Your task to perform on an android device: open app "Microsoft Authenticator" (install if not already installed) and enter user name: "Cornell@yahoo.com" and password: "bothersome" Image 0: 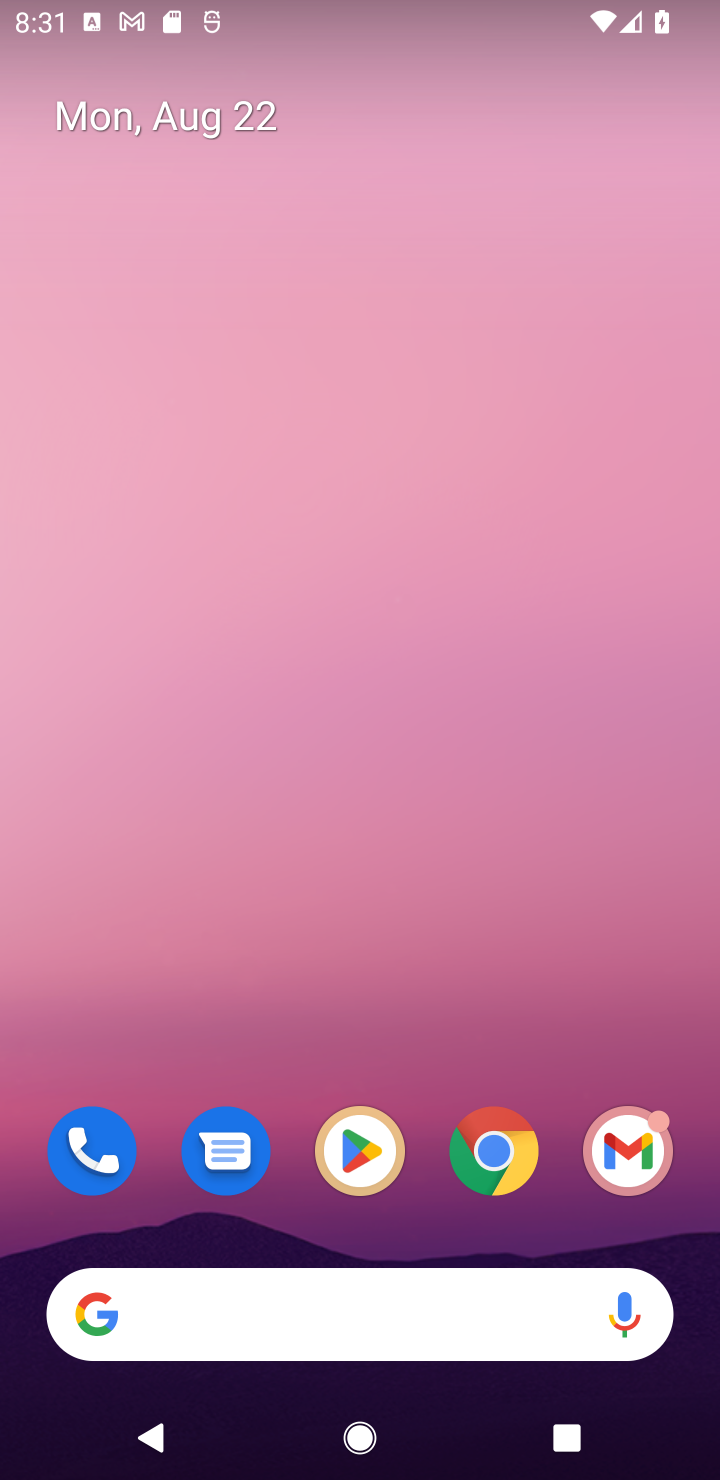
Step 0: click (358, 1162)
Your task to perform on an android device: open app "Microsoft Authenticator" (install if not already installed) and enter user name: "Cornell@yahoo.com" and password: "bothersome" Image 1: 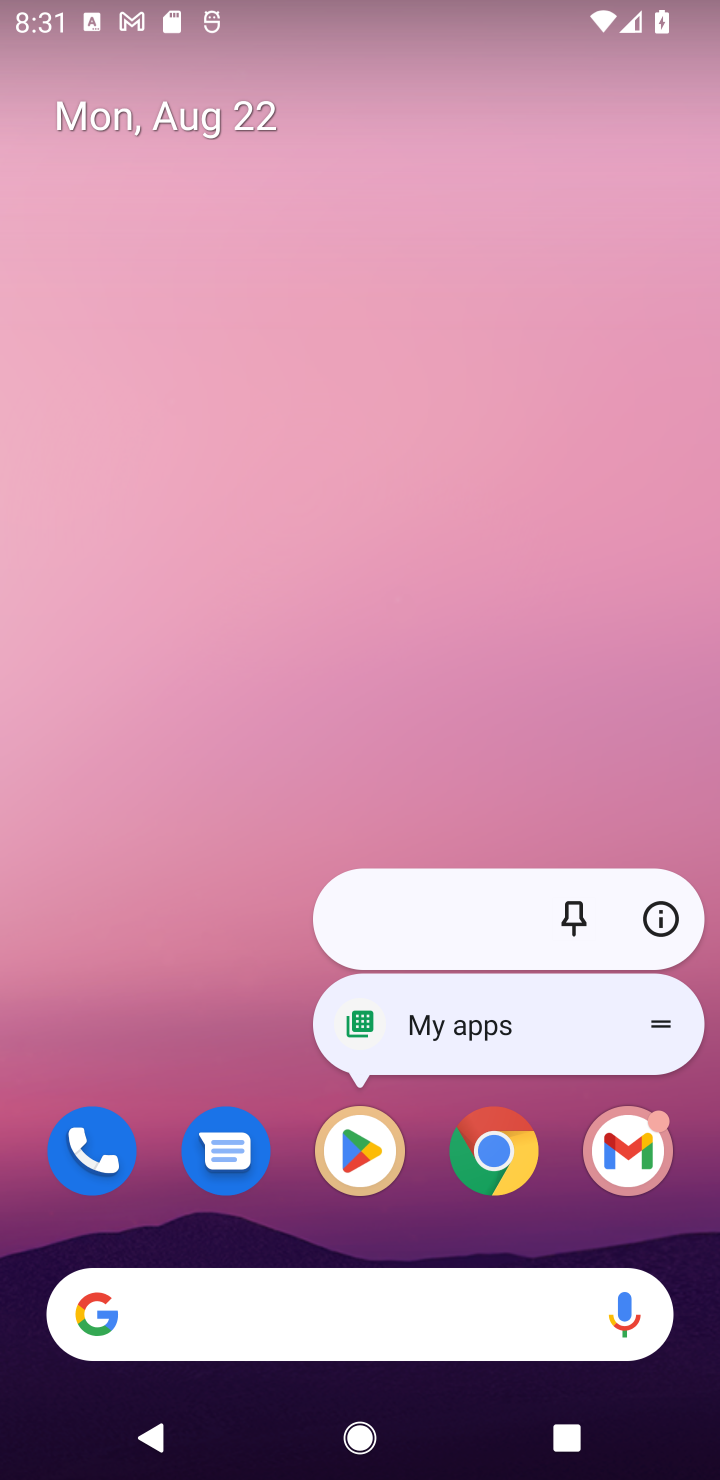
Step 1: click (358, 1171)
Your task to perform on an android device: open app "Microsoft Authenticator" (install if not already installed) and enter user name: "Cornell@yahoo.com" and password: "bothersome" Image 2: 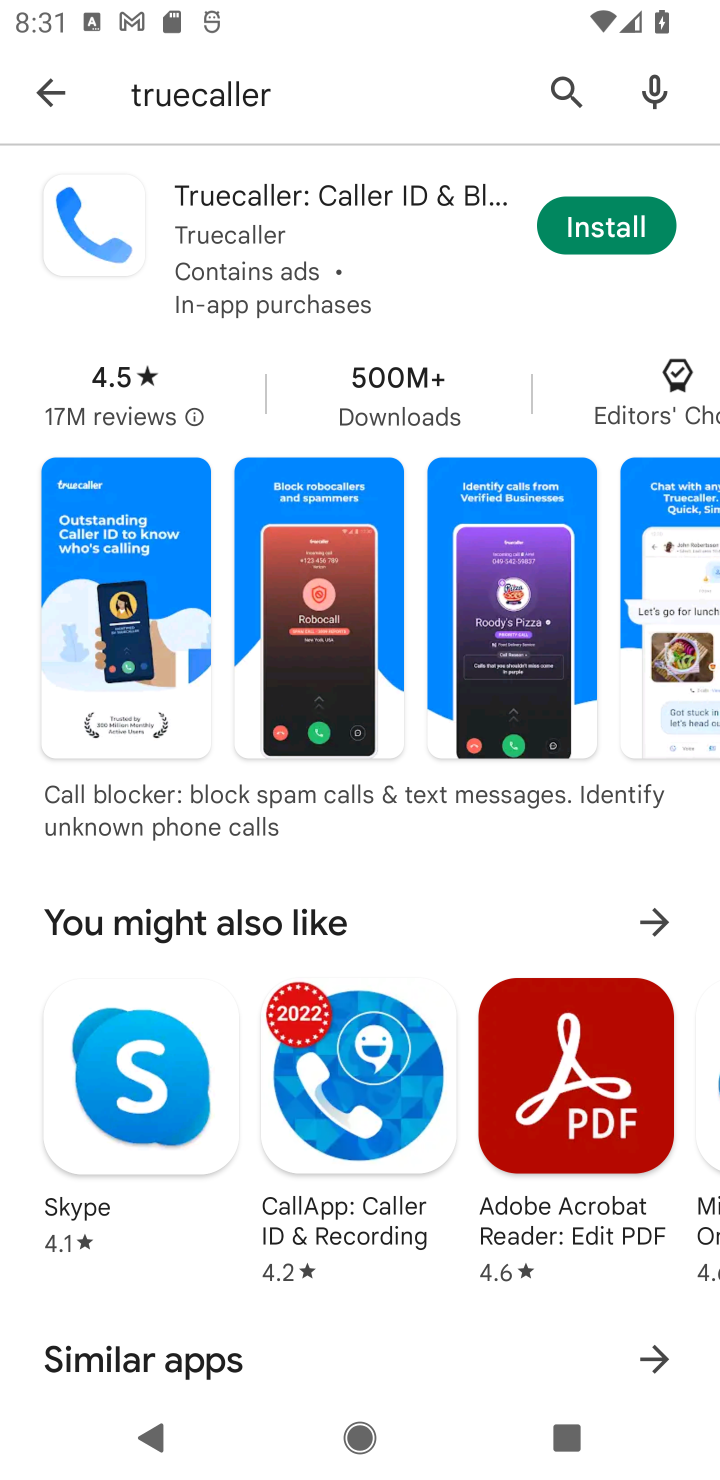
Step 2: click (561, 84)
Your task to perform on an android device: open app "Microsoft Authenticator" (install if not already installed) and enter user name: "Cornell@yahoo.com" and password: "bothersome" Image 3: 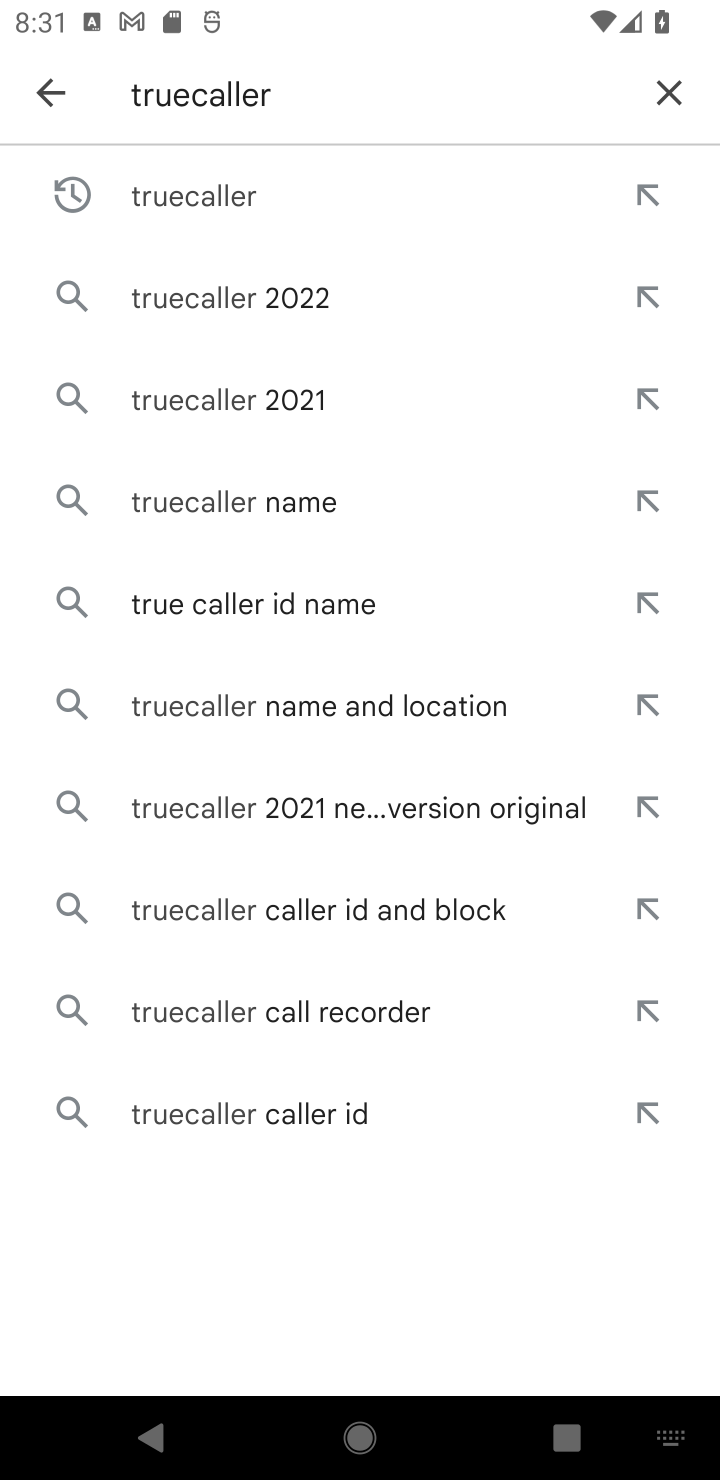
Step 3: click (662, 73)
Your task to perform on an android device: open app "Microsoft Authenticator" (install if not already installed) and enter user name: "Cornell@yahoo.com" and password: "bothersome" Image 4: 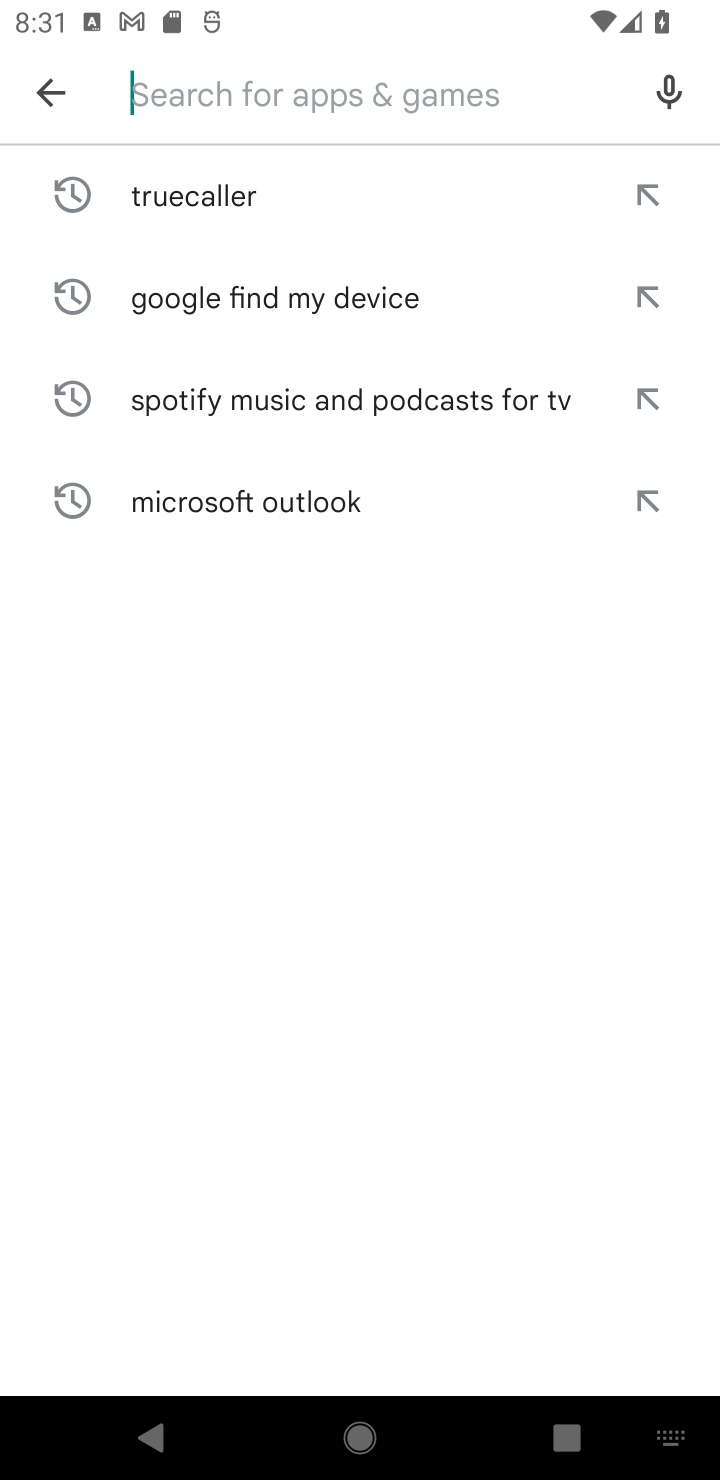
Step 4: type "Microsoft Authenticator"
Your task to perform on an android device: open app "Microsoft Authenticator" (install if not already installed) and enter user name: "Cornell@yahoo.com" and password: "bothersome" Image 5: 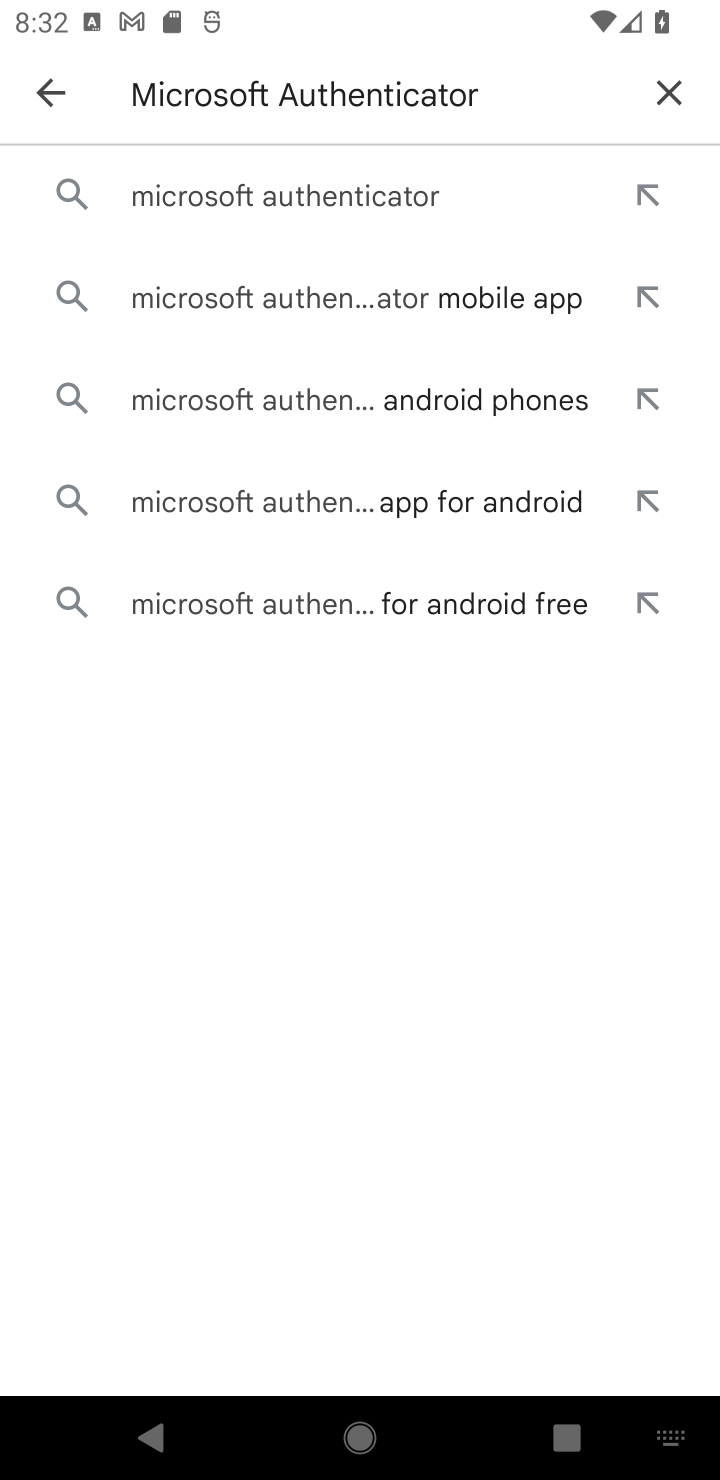
Step 5: click (362, 176)
Your task to perform on an android device: open app "Microsoft Authenticator" (install if not already installed) and enter user name: "Cornell@yahoo.com" and password: "bothersome" Image 6: 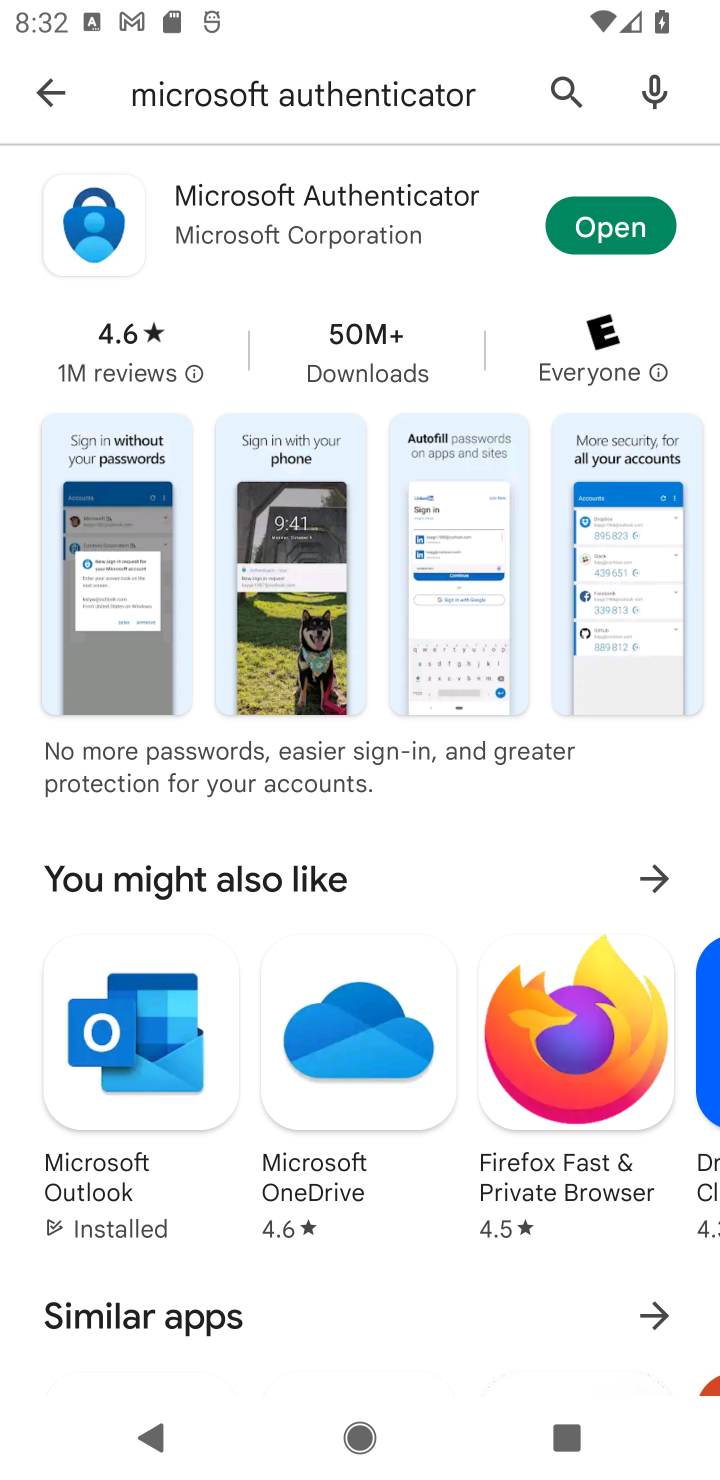
Step 6: click (594, 234)
Your task to perform on an android device: open app "Microsoft Authenticator" (install if not already installed) and enter user name: "Cornell@yahoo.com" and password: "bothersome" Image 7: 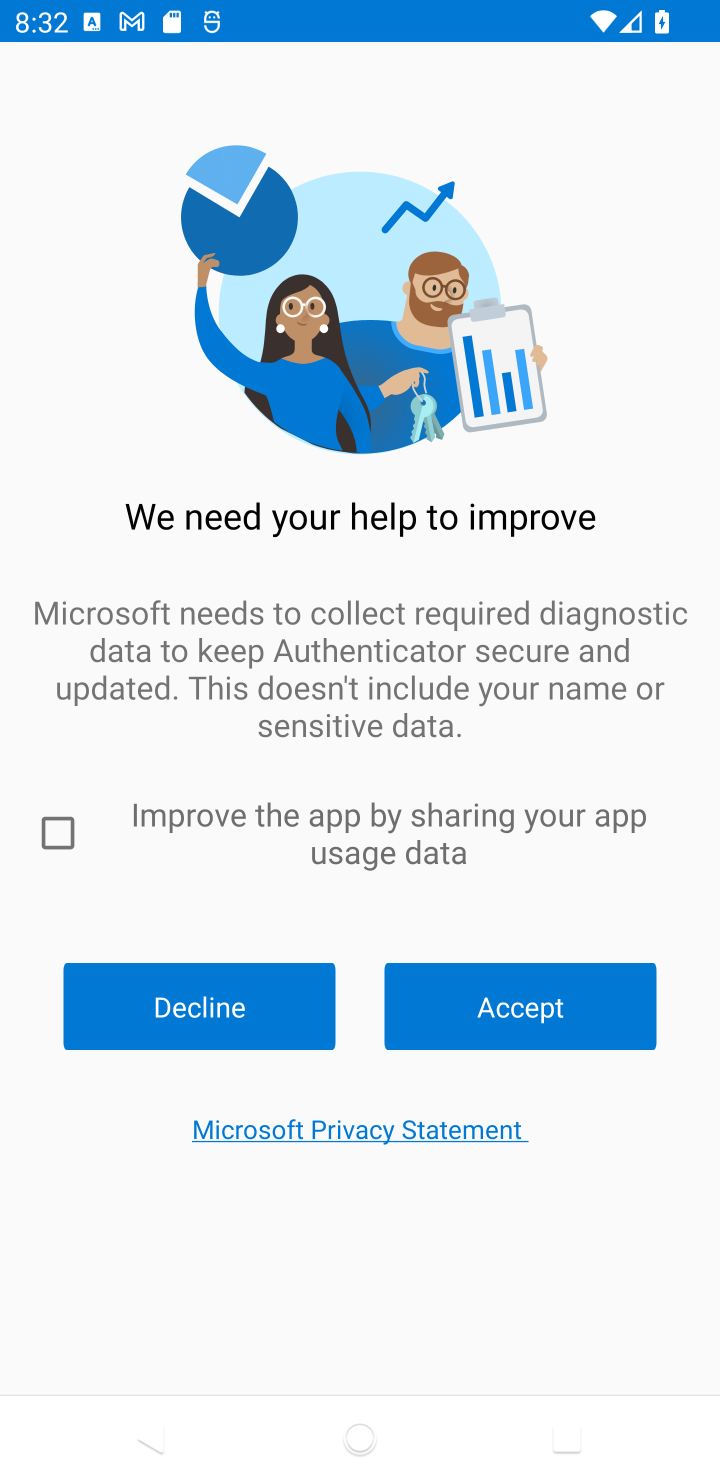
Step 7: click (490, 1021)
Your task to perform on an android device: open app "Microsoft Authenticator" (install if not already installed) and enter user name: "Cornell@yahoo.com" and password: "bothersome" Image 8: 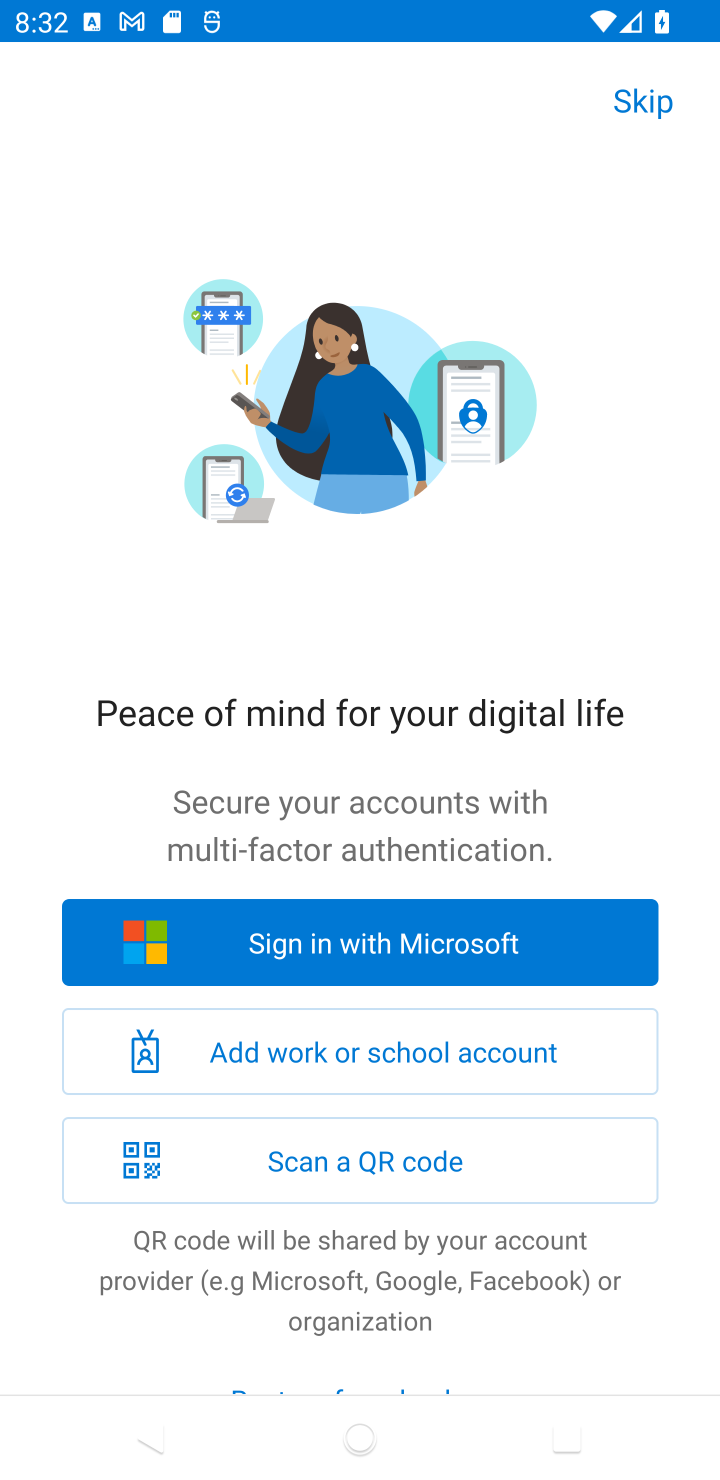
Step 8: click (634, 113)
Your task to perform on an android device: open app "Microsoft Authenticator" (install if not already installed) and enter user name: "Cornell@yahoo.com" and password: "bothersome" Image 9: 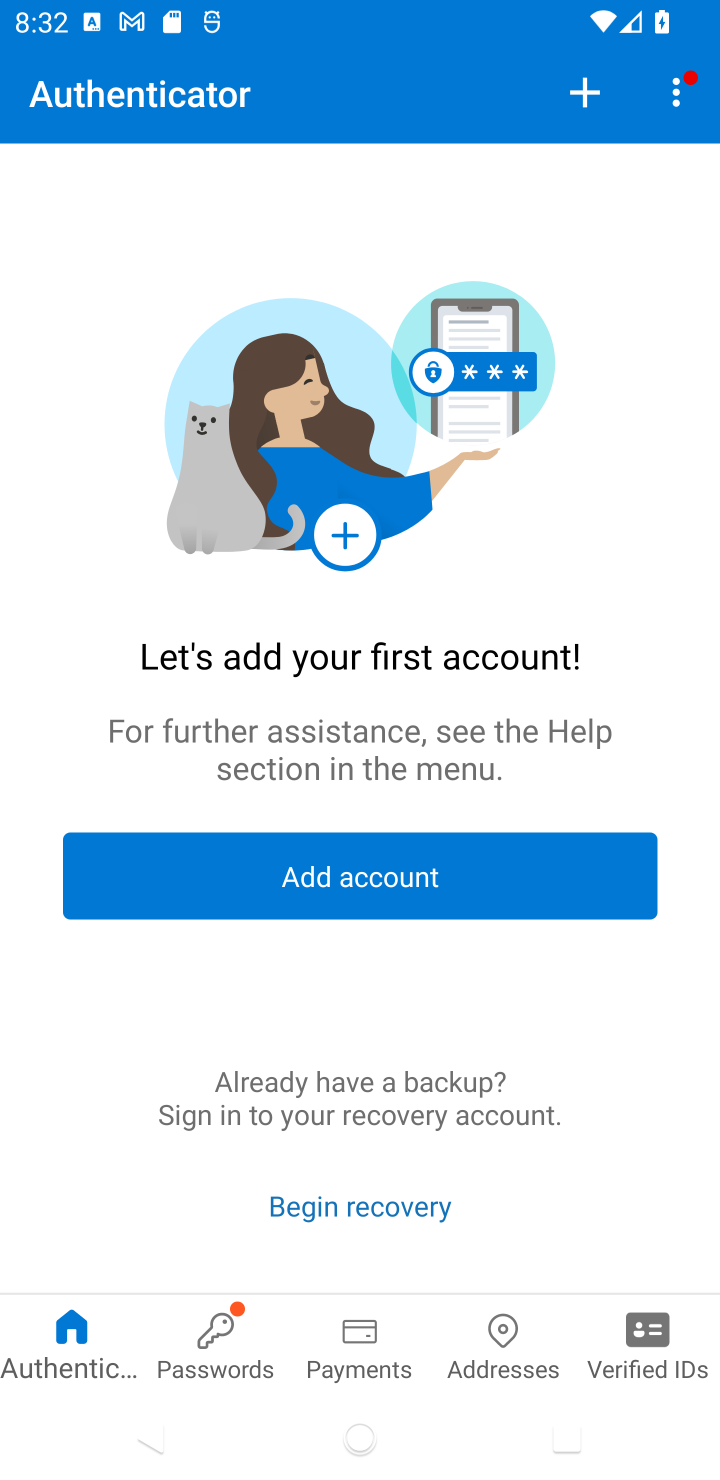
Step 9: click (430, 1120)
Your task to perform on an android device: open app "Microsoft Authenticator" (install if not already installed) and enter user name: "Cornell@yahoo.com" and password: "bothersome" Image 10: 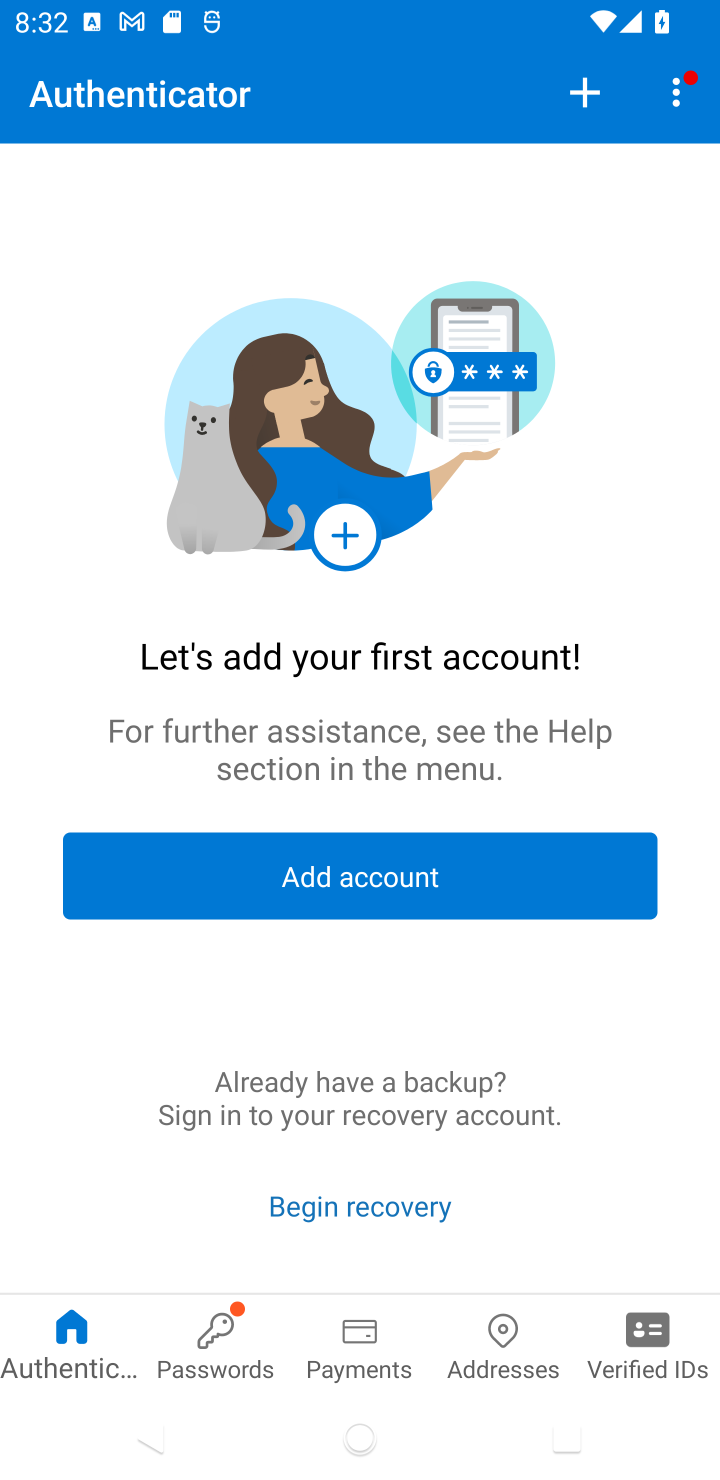
Step 10: click (383, 853)
Your task to perform on an android device: open app "Microsoft Authenticator" (install if not already installed) and enter user name: "Cornell@yahoo.com" and password: "bothersome" Image 11: 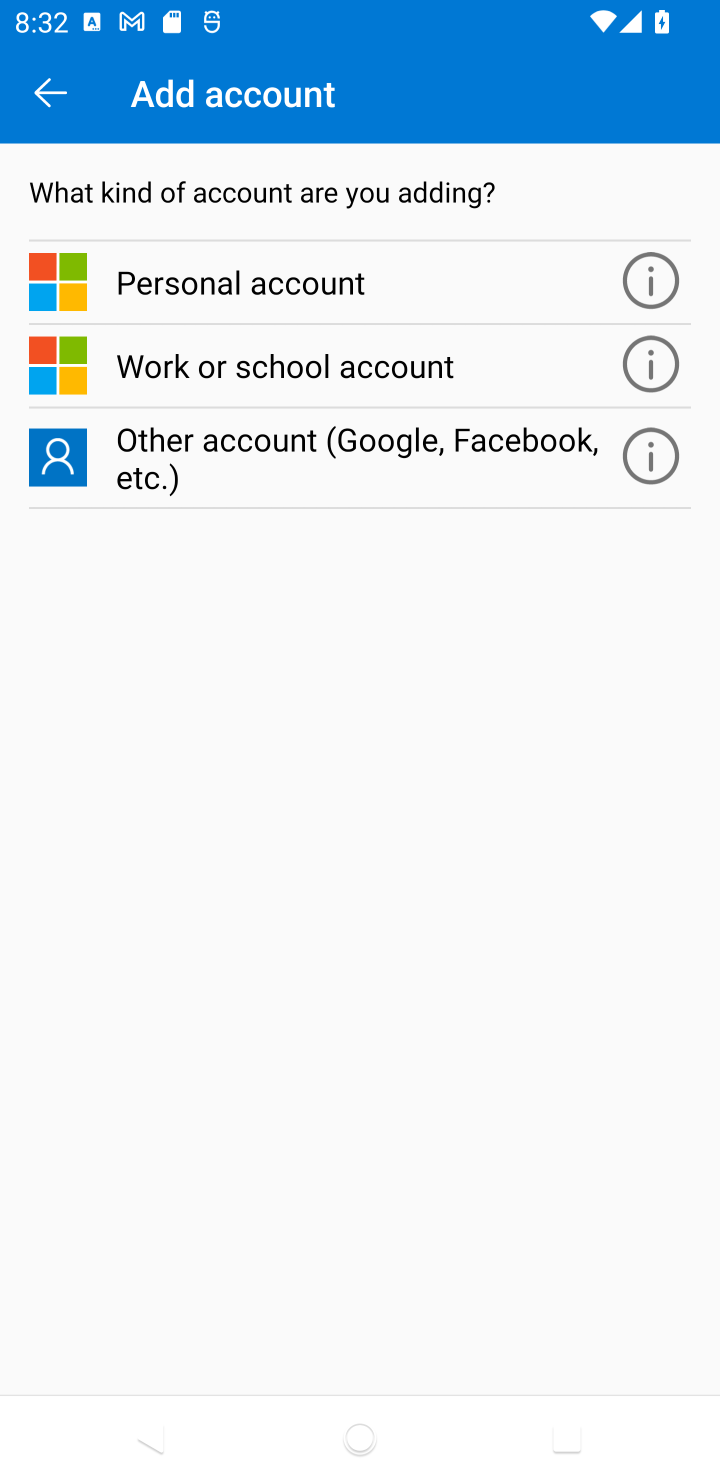
Step 11: task complete